Your task to perform on an android device: Add "logitech g933" to the cart on ebay.com Image 0: 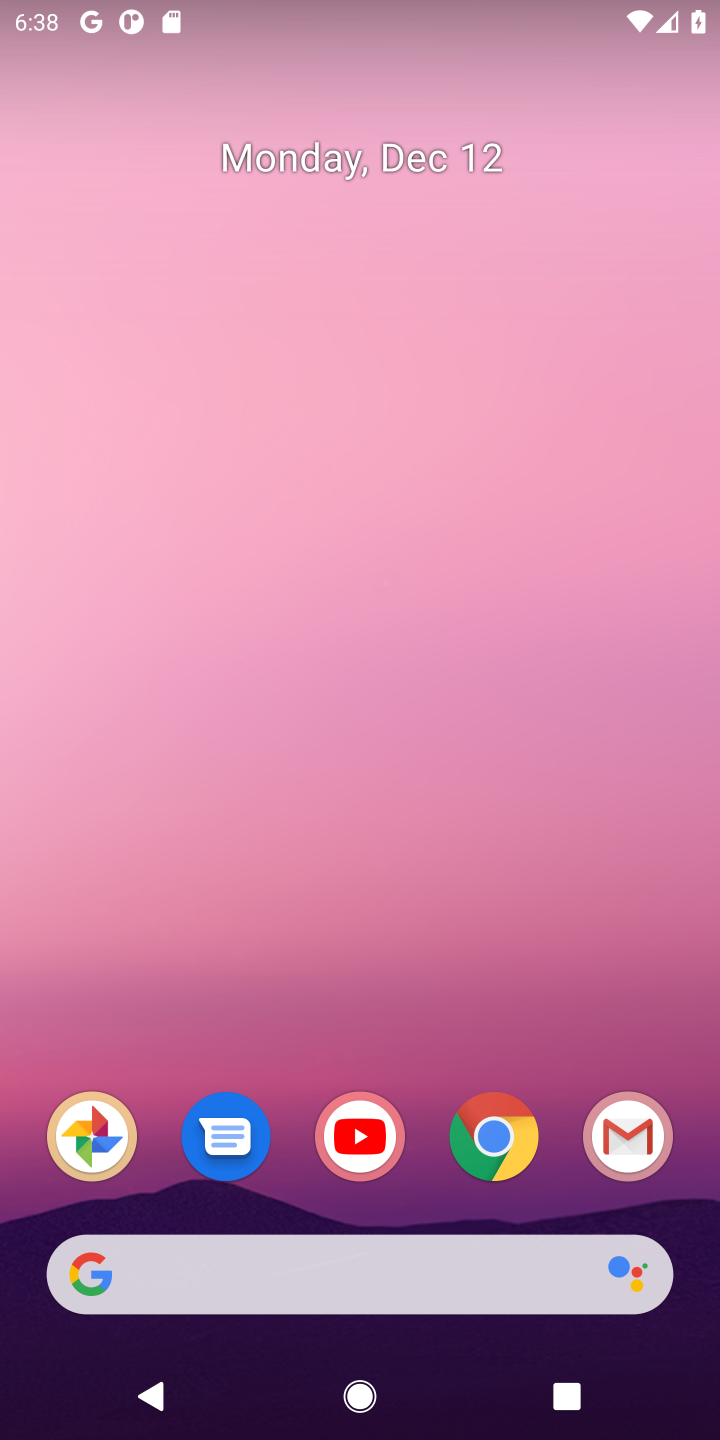
Step 0: click (500, 1135)
Your task to perform on an android device: Add "logitech g933" to the cart on ebay.com Image 1: 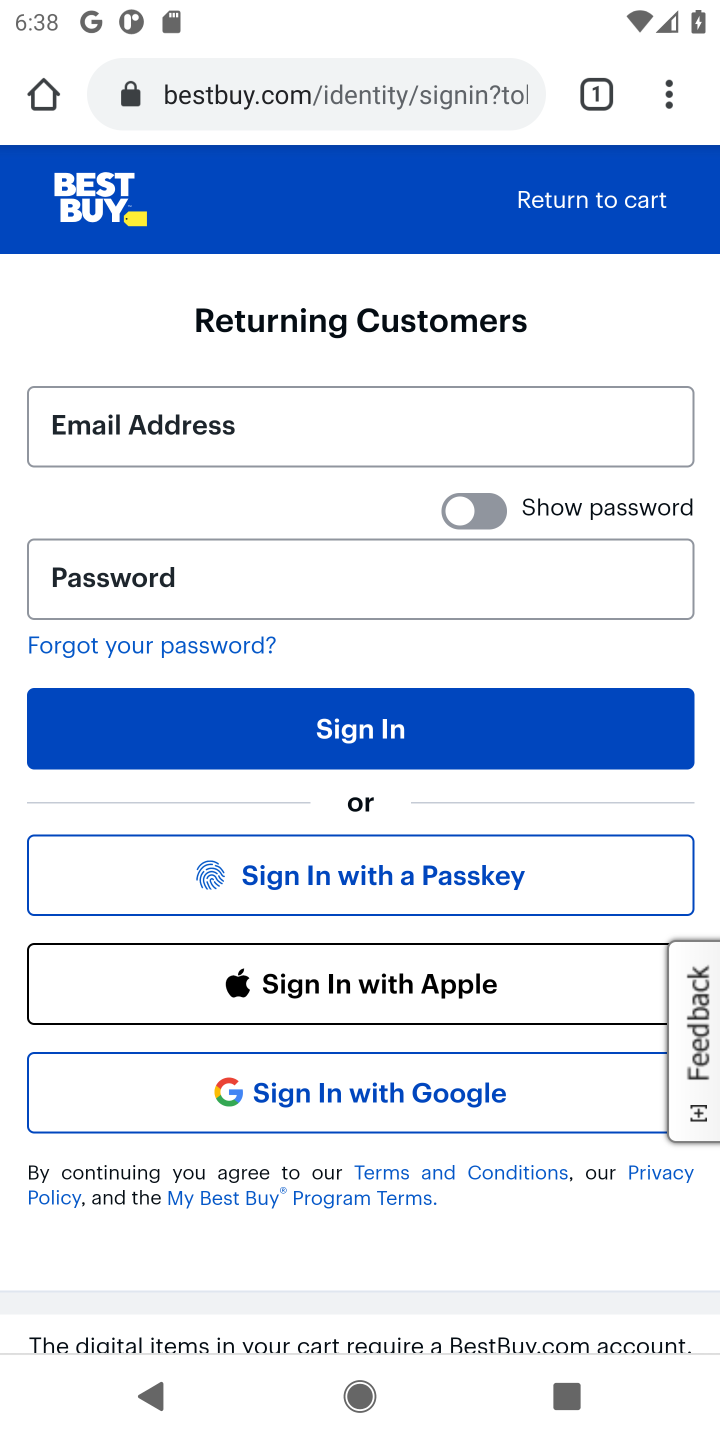
Step 1: click (352, 101)
Your task to perform on an android device: Add "logitech g933" to the cart on ebay.com Image 2: 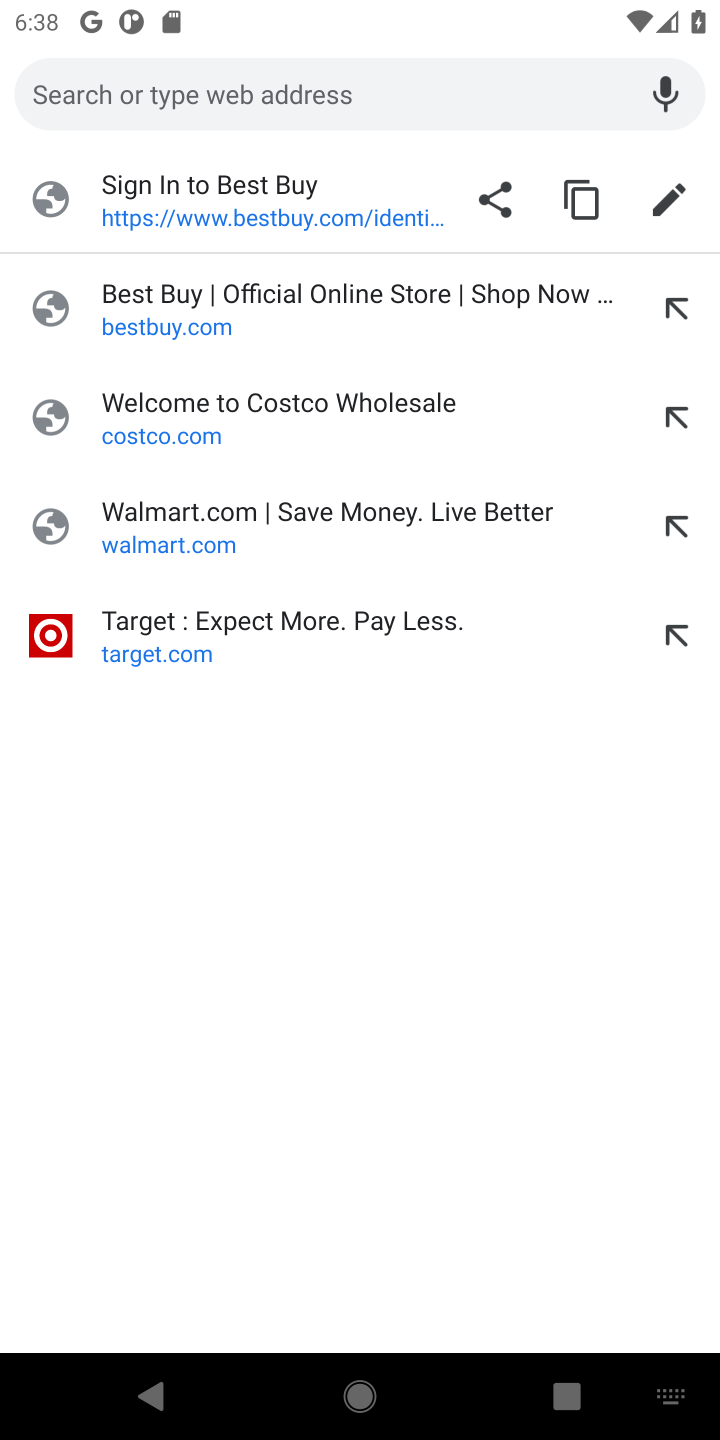
Step 2: type "ebay.com"
Your task to perform on an android device: Add "logitech g933" to the cart on ebay.com Image 3: 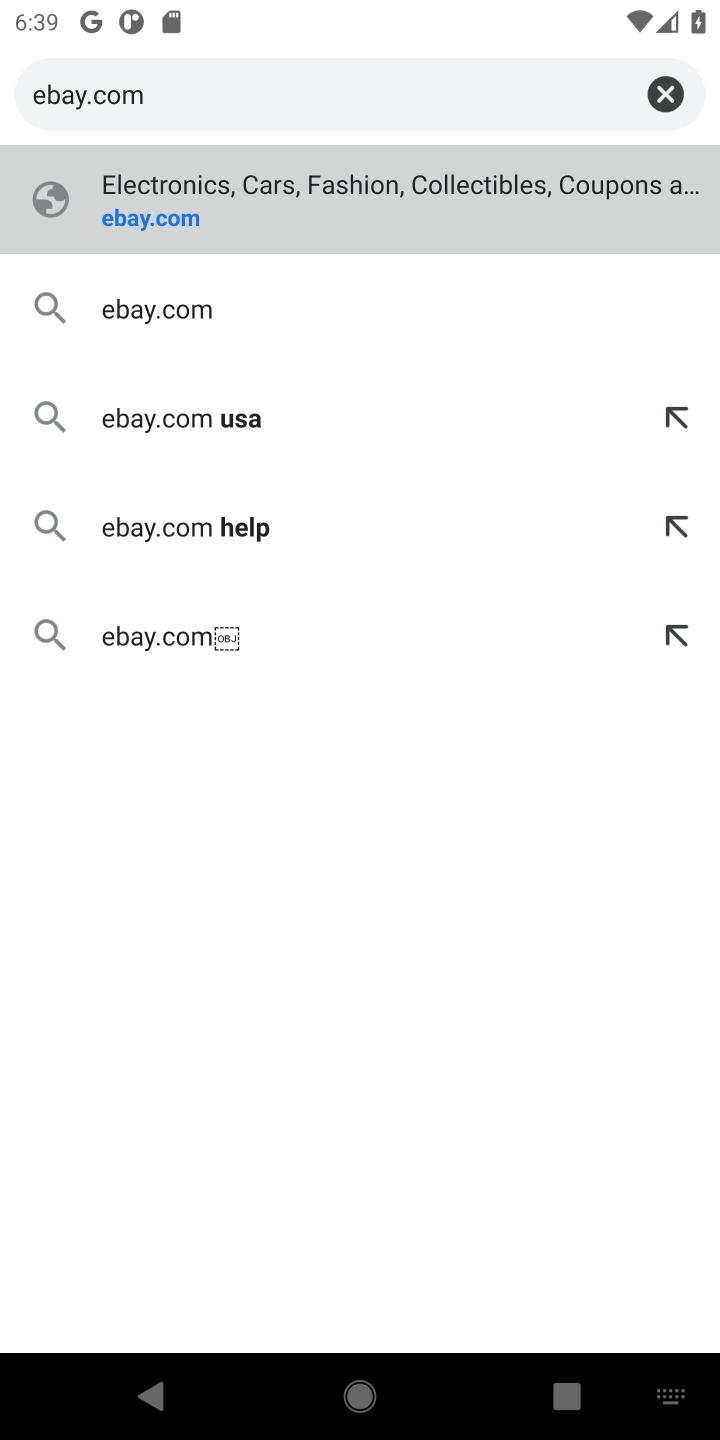
Step 3: click (105, 222)
Your task to perform on an android device: Add "logitech g933" to the cart on ebay.com Image 4: 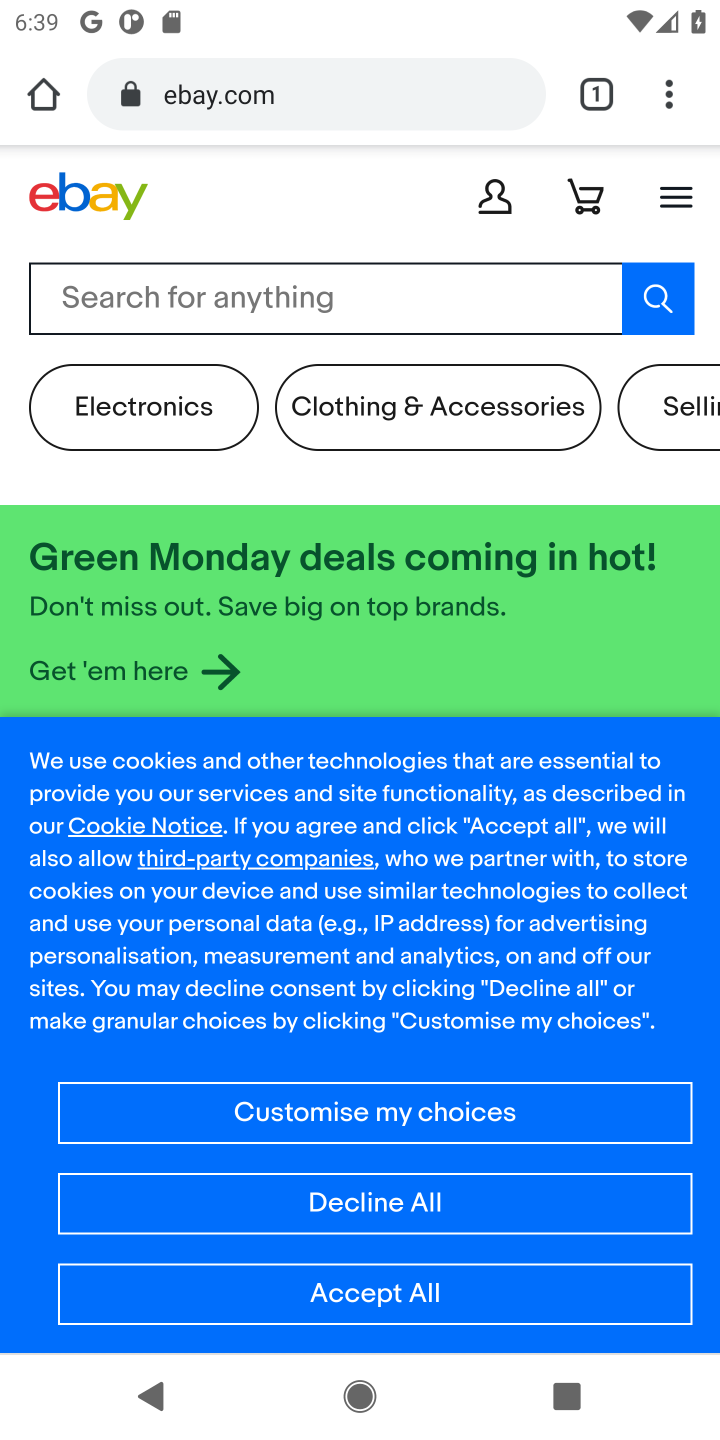
Step 4: click (169, 306)
Your task to perform on an android device: Add "logitech g933" to the cart on ebay.com Image 5: 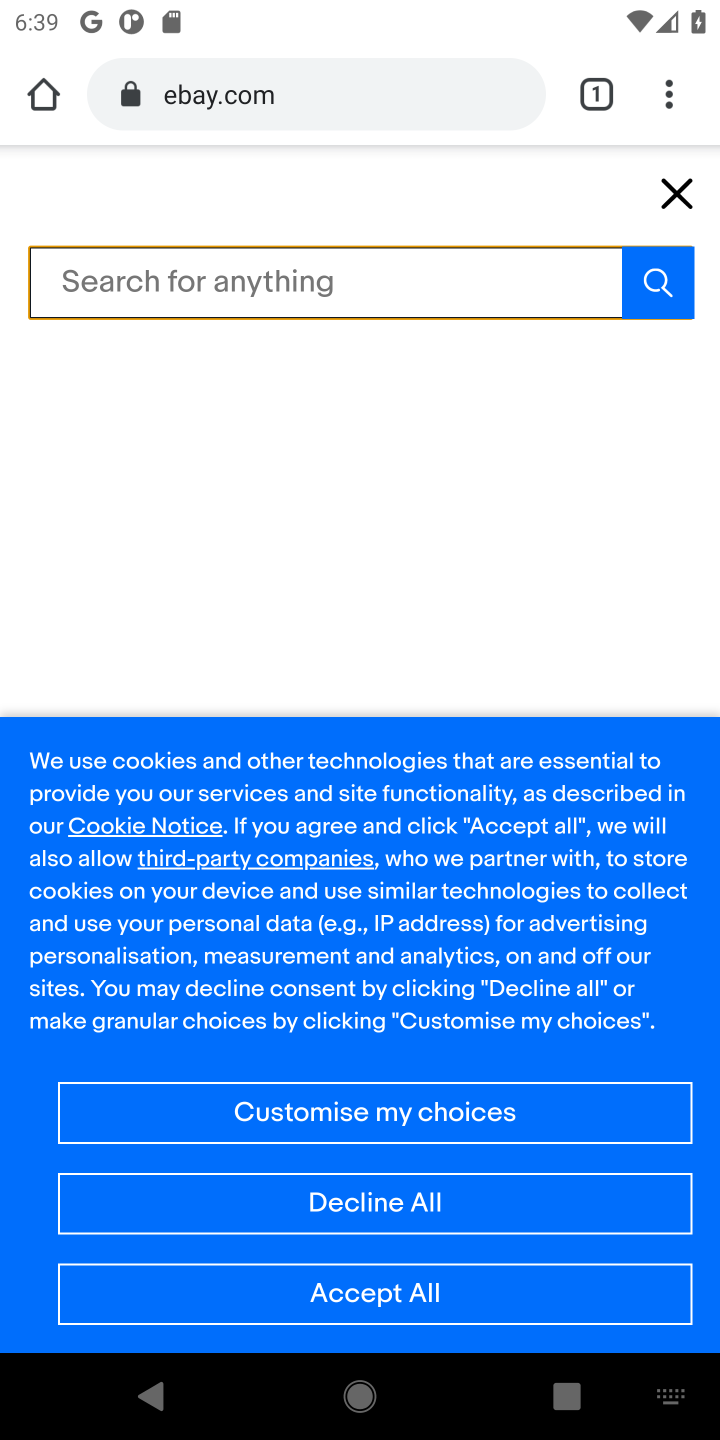
Step 5: type "logitech g933"
Your task to perform on an android device: Add "logitech g933" to the cart on ebay.com Image 6: 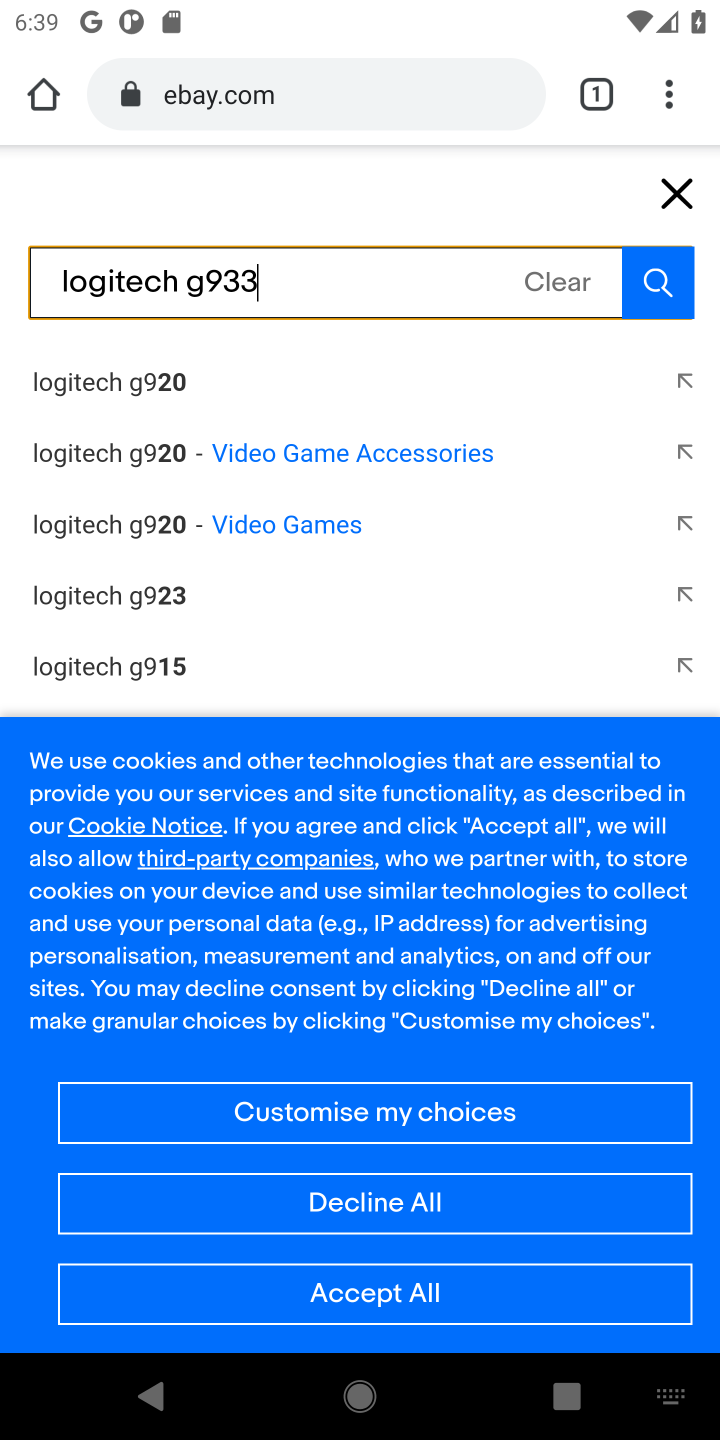
Step 6: click (663, 294)
Your task to perform on an android device: Add "logitech g933" to the cart on ebay.com Image 7: 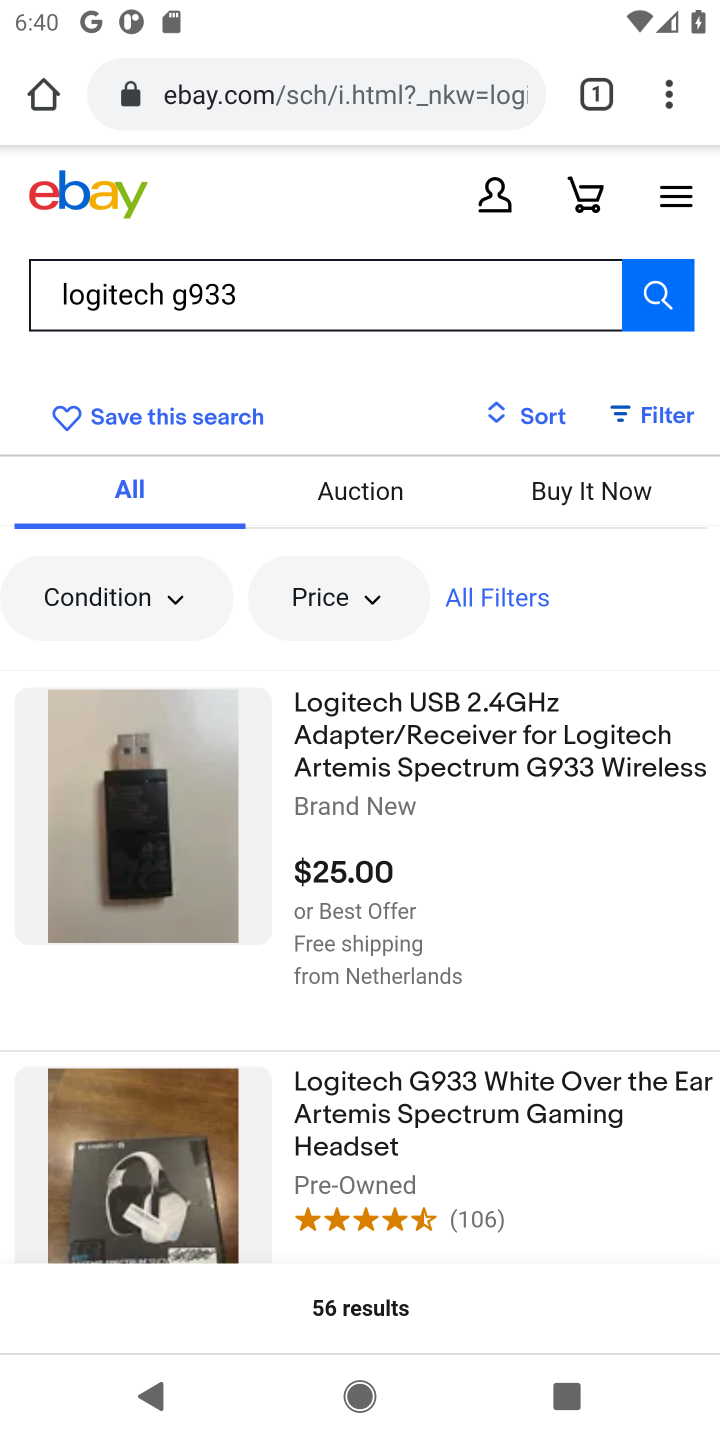
Step 7: click (421, 779)
Your task to perform on an android device: Add "logitech g933" to the cart on ebay.com Image 8: 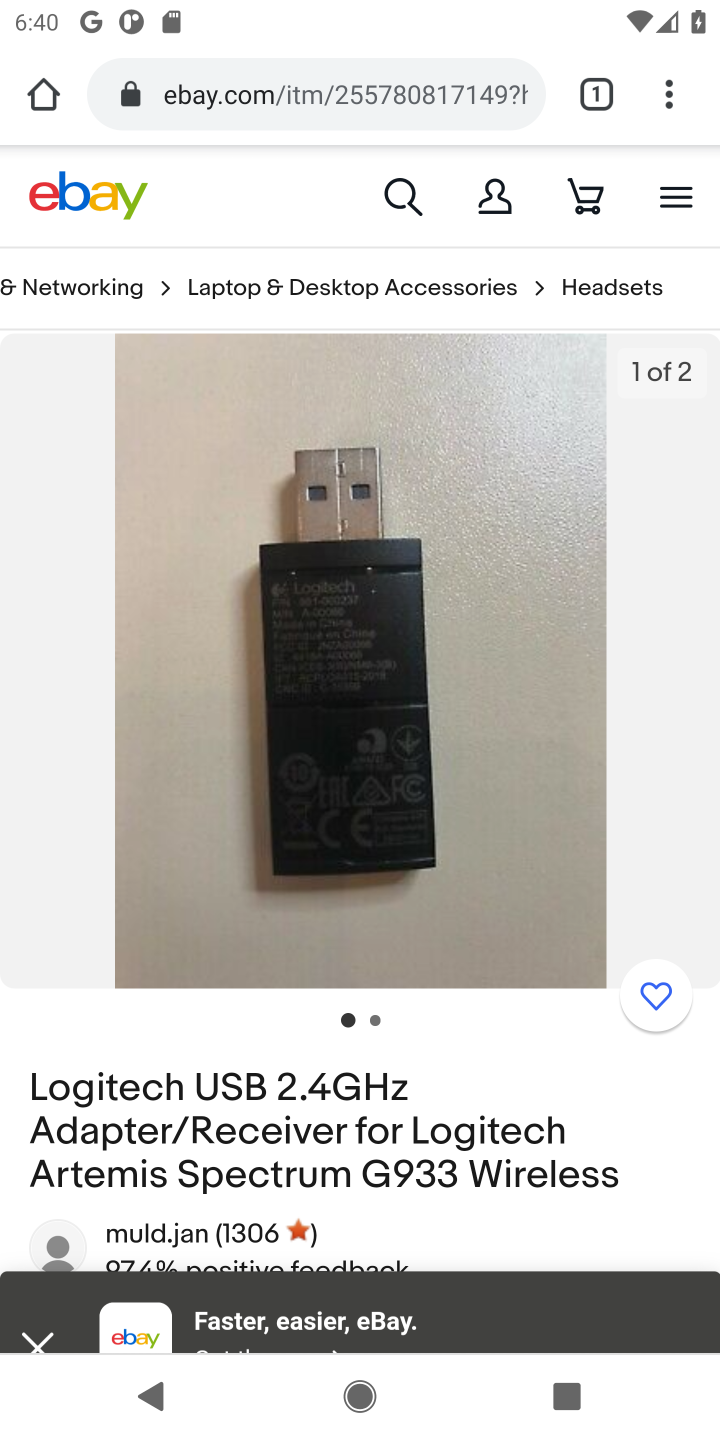
Step 8: drag from (413, 1112) to (451, 474)
Your task to perform on an android device: Add "logitech g933" to the cart on ebay.com Image 9: 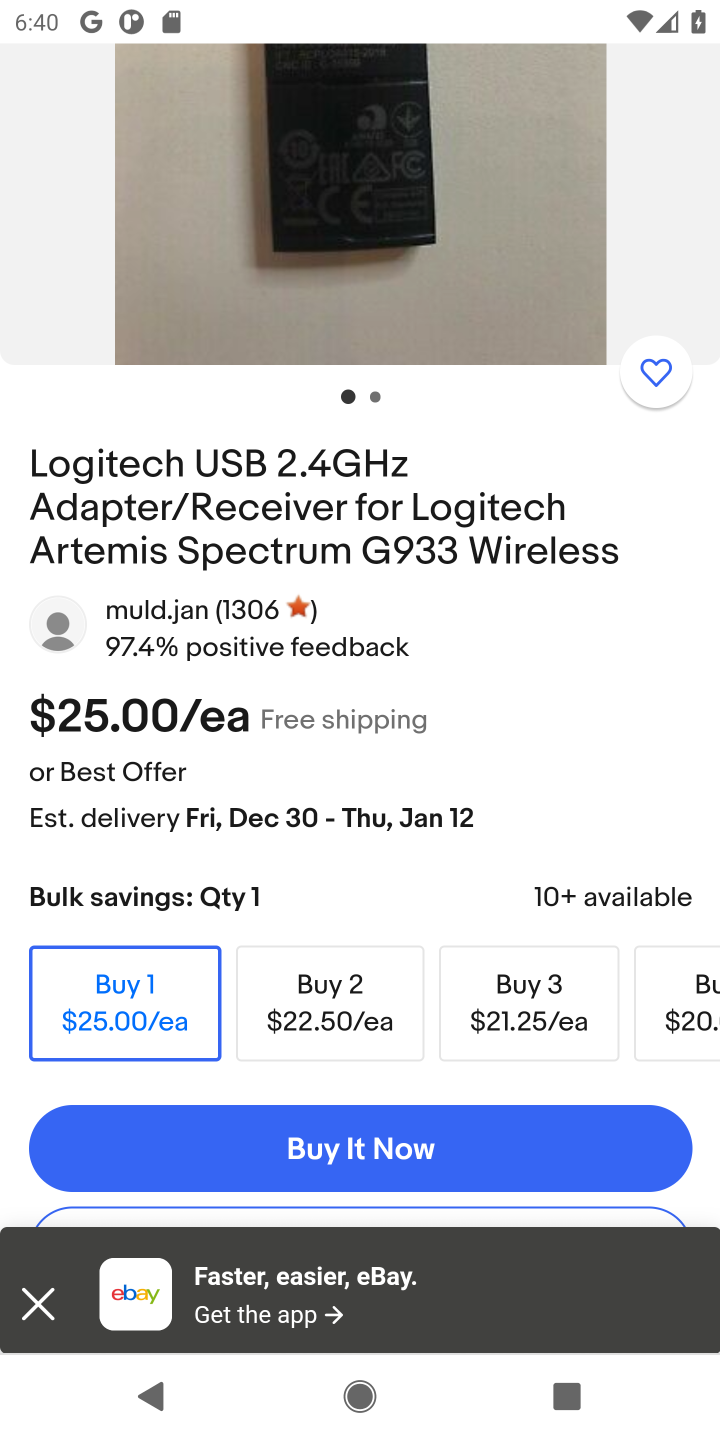
Step 9: drag from (367, 930) to (388, 510)
Your task to perform on an android device: Add "logitech g933" to the cart on ebay.com Image 10: 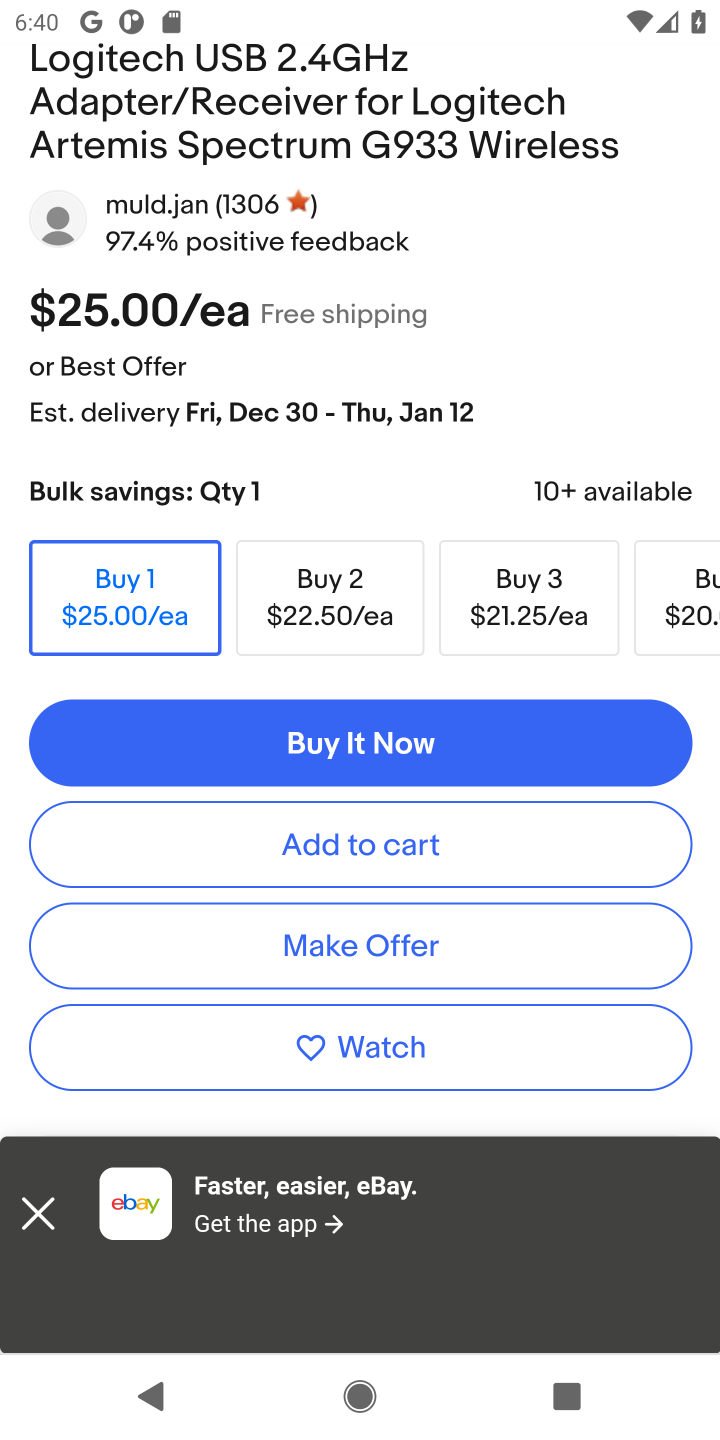
Step 10: click (313, 870)
Your task to perform on an android device: Add "logitech g933" to the cart on ebay.com Image 11: 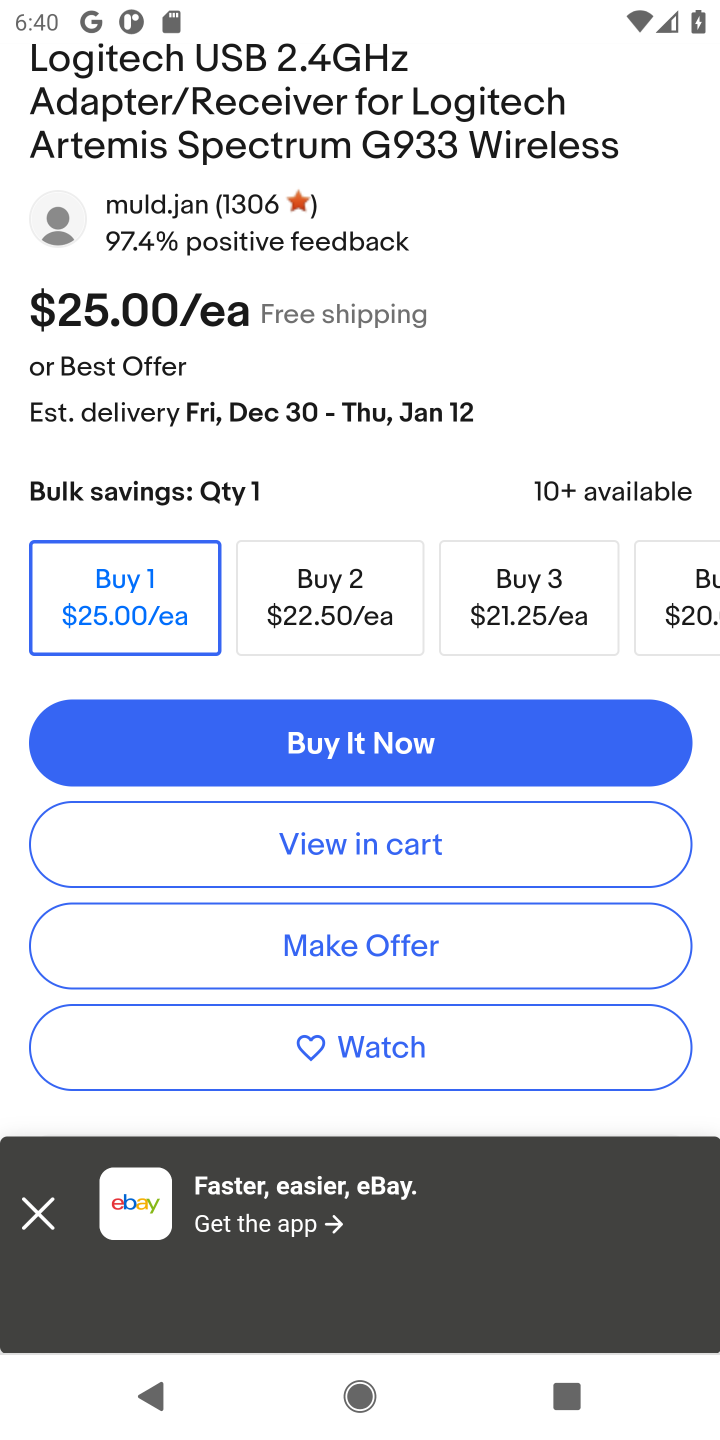
Step 11: task complete